Your task to perform on an android device: Open calendar and show me the third week of next month Image 0: 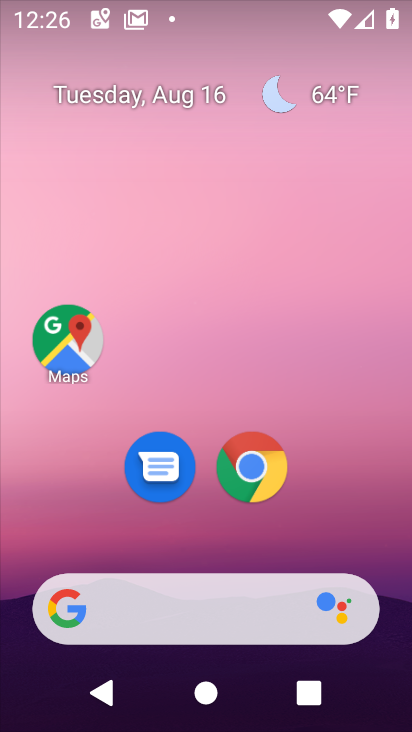
Step 0: press home button
Your task to perform on an android device: Open calendar and show me the third week of next month Image 1: 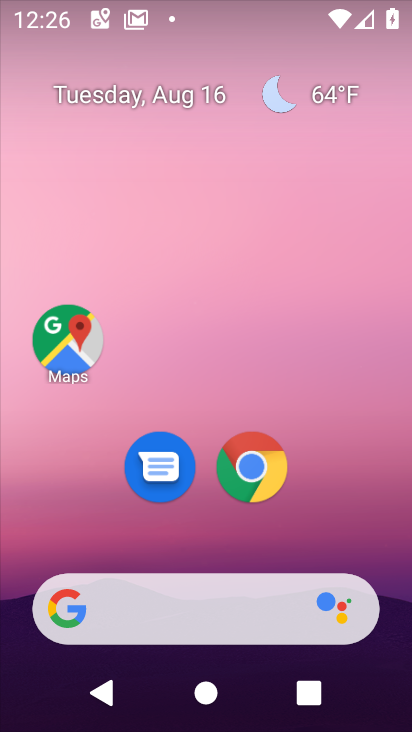
Step 1: drag from (350, 531) to (357, 134)
Your task to perform on an android device: Open calendar and show me the third week of next month Image 2: 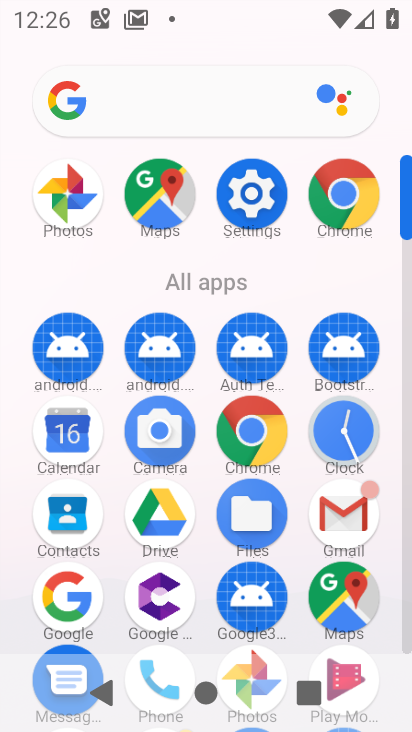
Step 2: click (57, 433)
Your task to perform on an android device: Open calendar and show me the third week of next month Image 3: 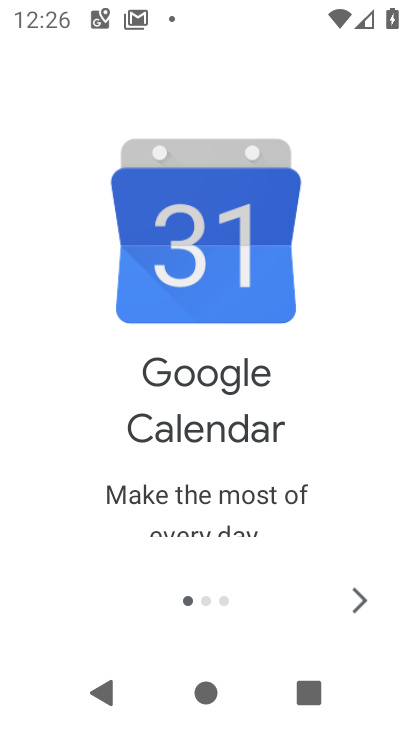
Step 3: click (362, 596)
Your task to perform on an android device: Open calendar and show me the third week of next month Image 4: 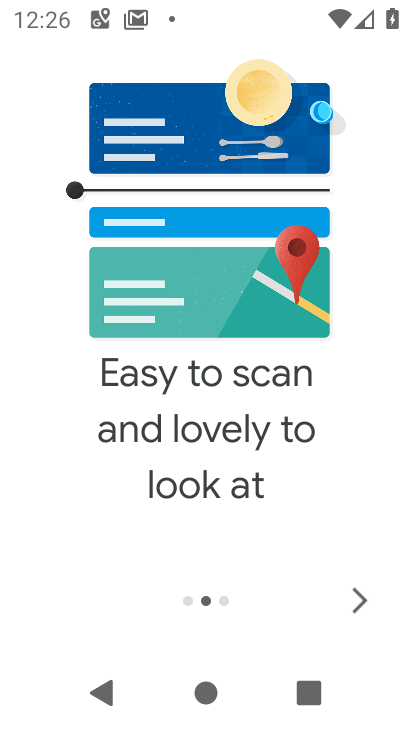
Step 4: click (362, 596)
Your task to perform on an android device: Open calendar and show me the third week of next month Image 5: 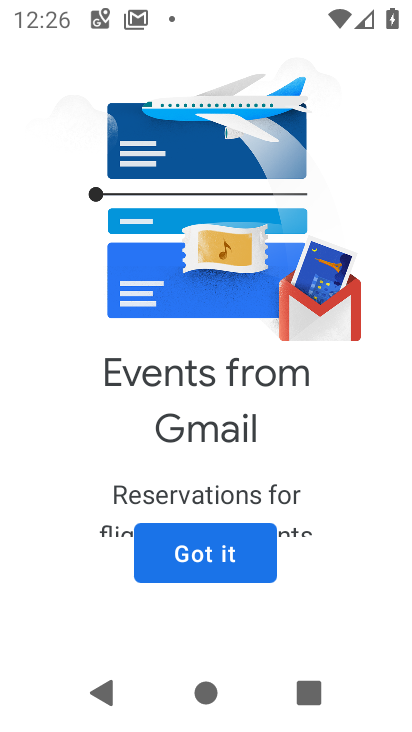
Step 5: click (212, 560)
Your task to perform on an android device: Open calendar and show me the third week of next month Image 6: 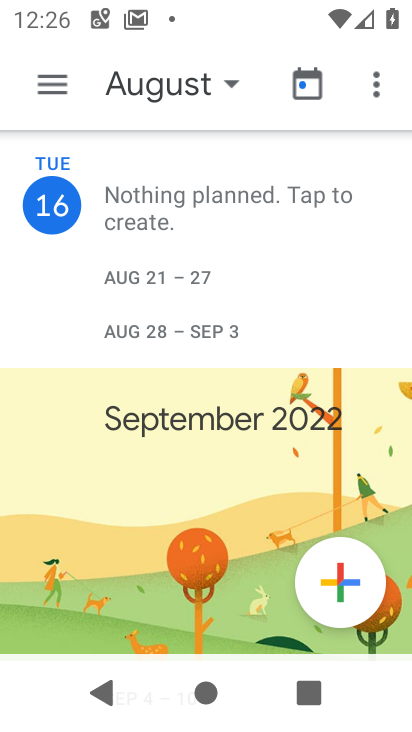
Step 6: click (229, 77)
Your task to perform on an android device: Open calendar and show me the third week of next month Image 7: 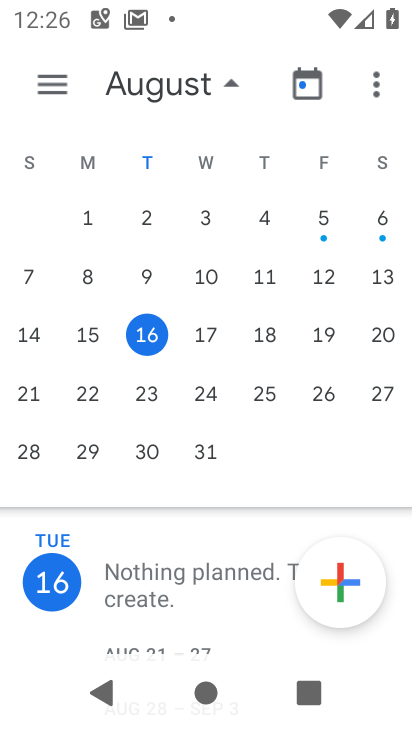
Step 7: drag from (381, 193) to (44, 187)
Your task to perform on an android device: Open calendar and show me the third week of next month Image 8: 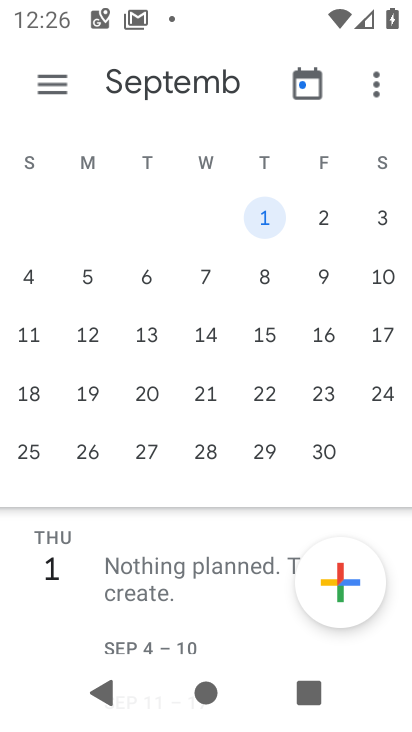
Step 8: click (90, 329)
Your task to perform on an android device: Open calendar and show me the third week of next month Image 9: 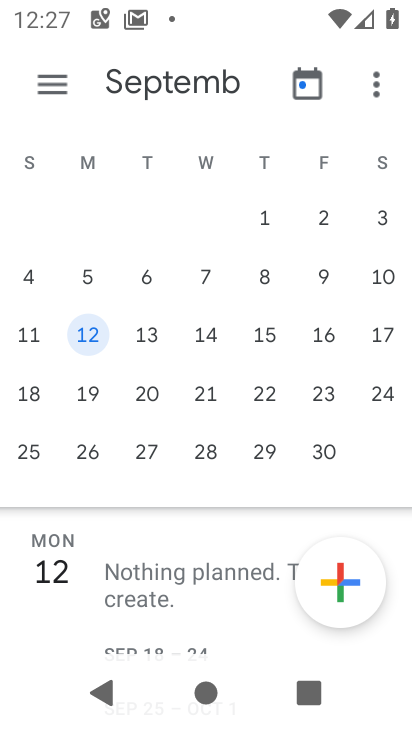
Step 9: task complete